Your task to perform on an android device: toggle priority inbox in the gmail app Image 0: 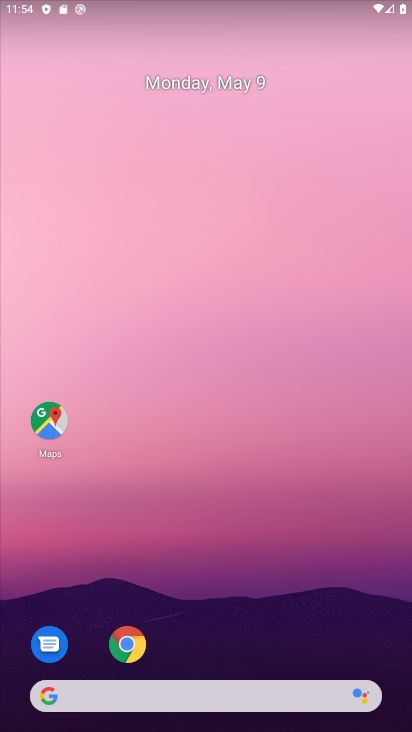
Step 0: drag from (216, 433) to (250, 203)
Your task to perform on an android device: toggle priority inbox in the gmail app Image 1: 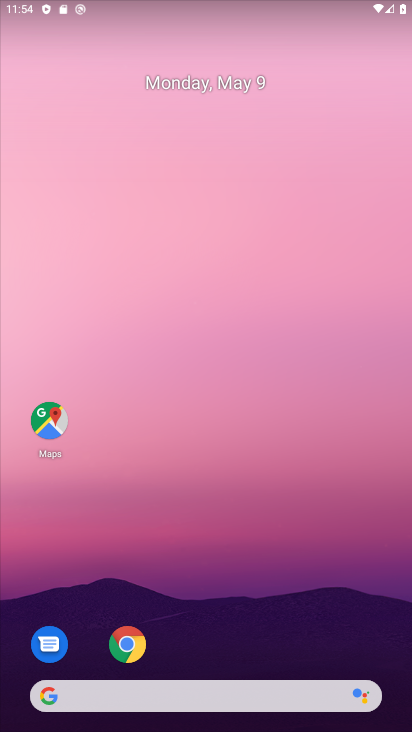
Step 1: drag from (211, 589) to (257, 148)
Your task to perform on an android device: toggle priority inbox in the gmail app Image 2: 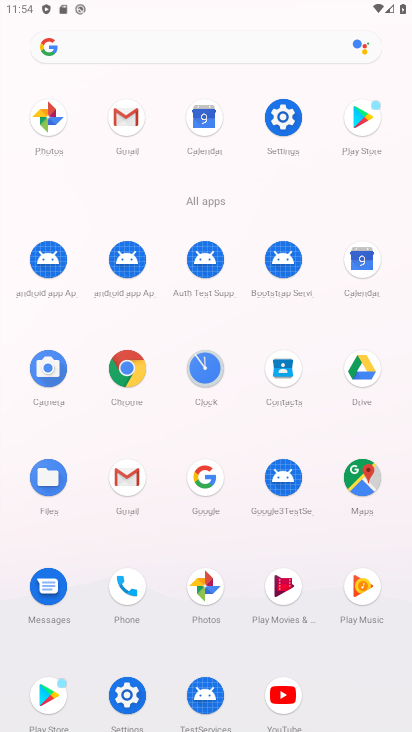
Step 2: click (126, 485)
Your task to perform on an android device: toggle priority inbox in the gmail app Image 3: 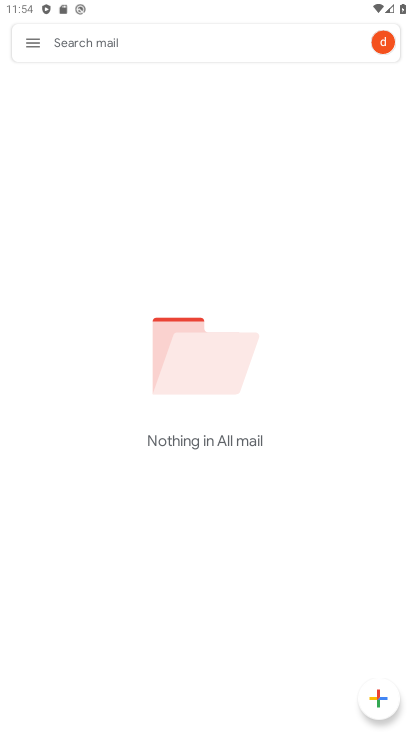
Step 3: click (36, 45)
Your task to perform on an android device: toggle priority inbox in the gmail app Image 4: 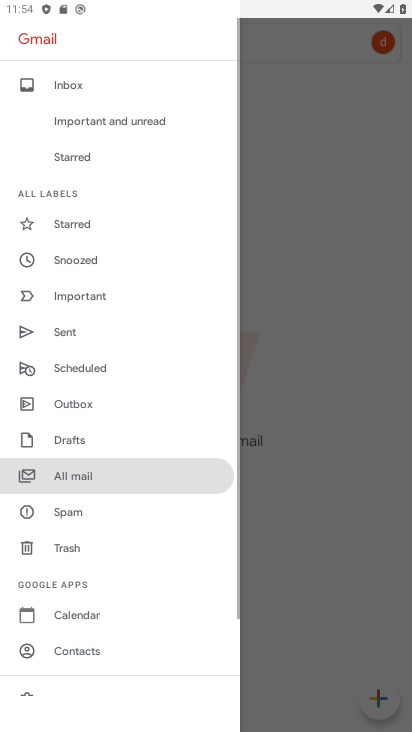
Step 4: drag from (92, 646) to (190, 59)
Your task to perform on an android device: toggle priority inbox in the gmail app Image 5: 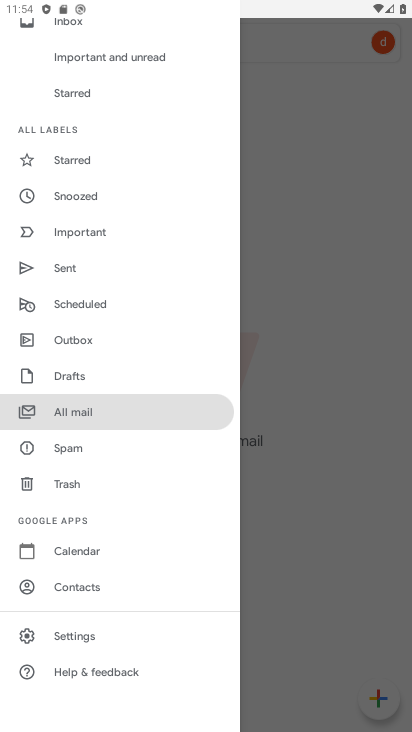
Step 5: click (79, 636)
Your task to perform on an android device: toggle priority inbox in the gmail app Image 6: 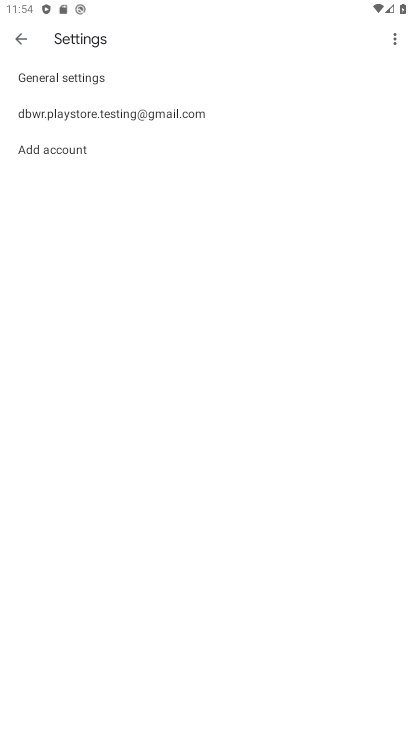
Step 6: click (108, 112)
Your task to perform on an android device: toggle priority inbox in the gmail app Image 7: 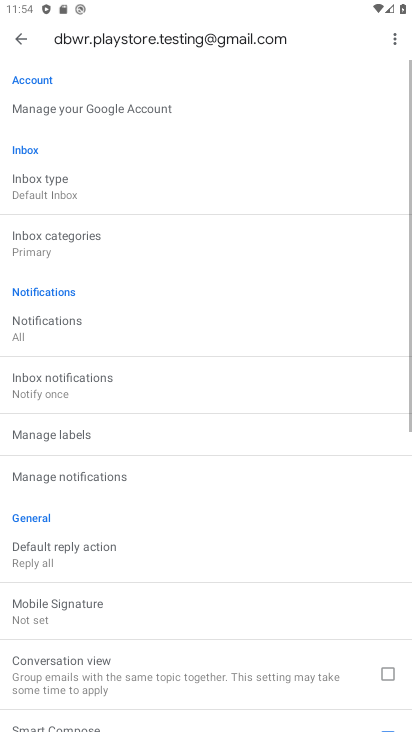
Step 7: click (62, 190)
Your task to perform on an android device: toggle priority inbox in the gmail app Image 8: 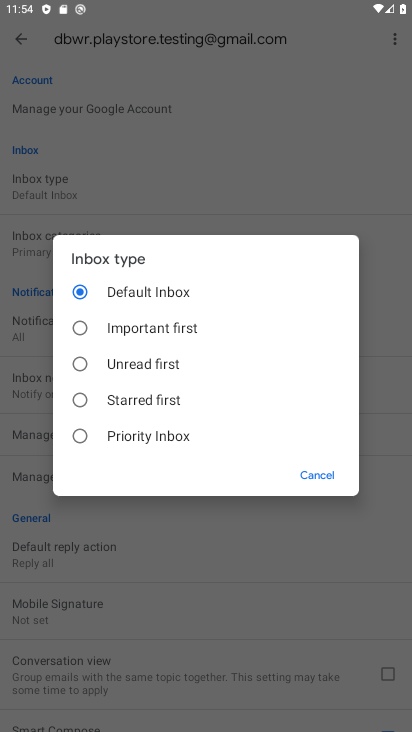
Step 8: click (92, 433)
Your task to perform on an android device: toggle priority inbox in the gmail app Image 9: 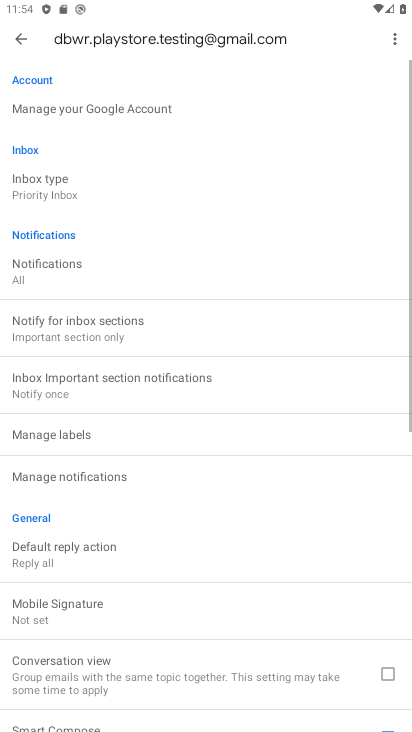
Step 9: task complete